Your task to perform on an android device: Open Google Image 0: 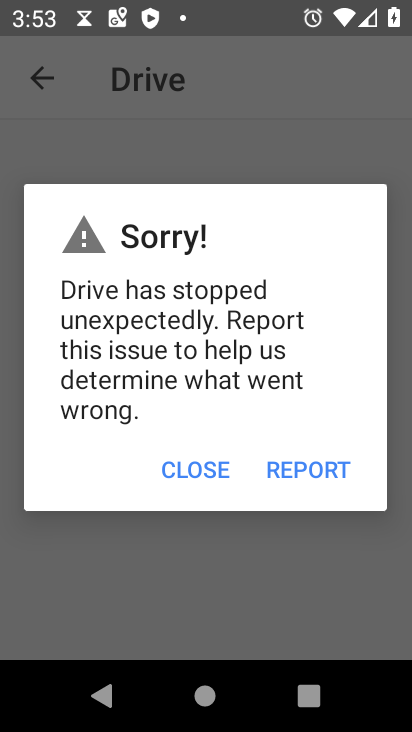
Step 0: press home button
Your task to perform on an android device: Open Google Image 1: 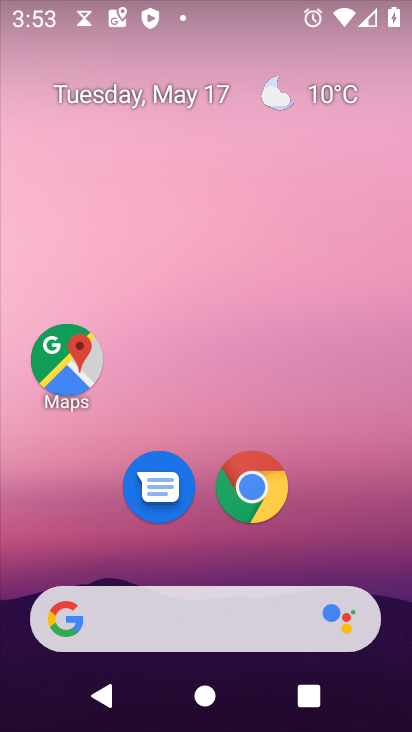
Step 1: click (257, 487)
Your task to perform on an android device: Open Google Image 2: 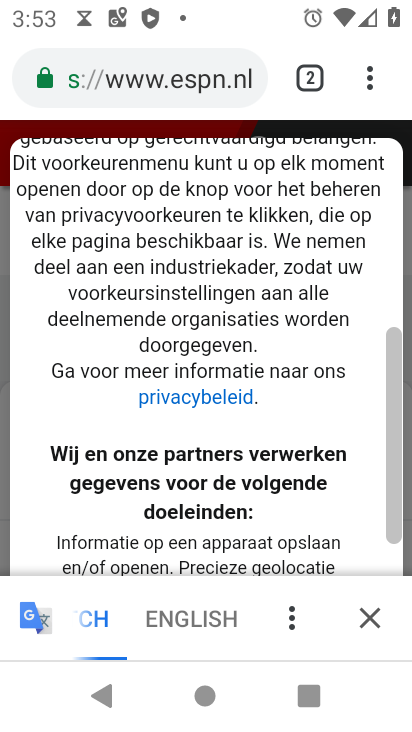
Step 2: task complete